Your task to perform on an android device: find photos in the google photos app Image 0: 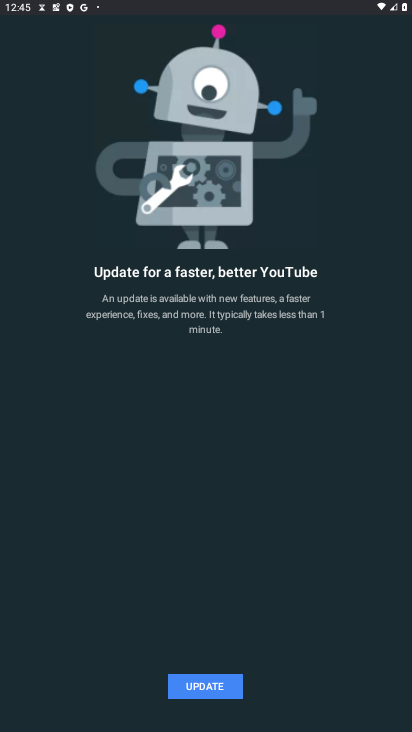
Step 0: press home button
Your task to perform on an android device: find photos in the google photos app Image 1: 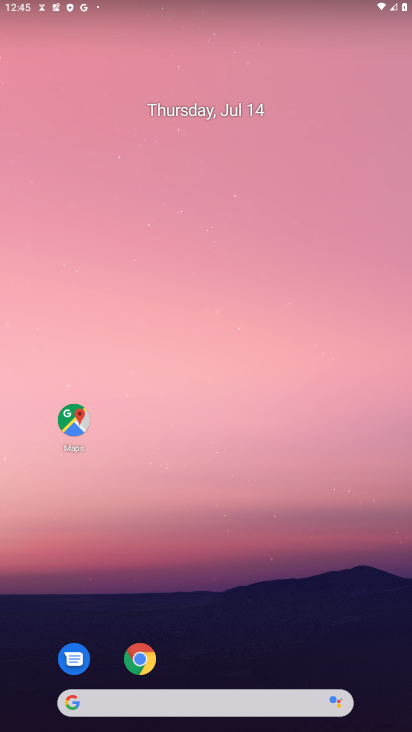
Step 1: drag from (34, 699) to (205, 257)
Your task to perform on an android device: find photos in the google photos app Image 2: 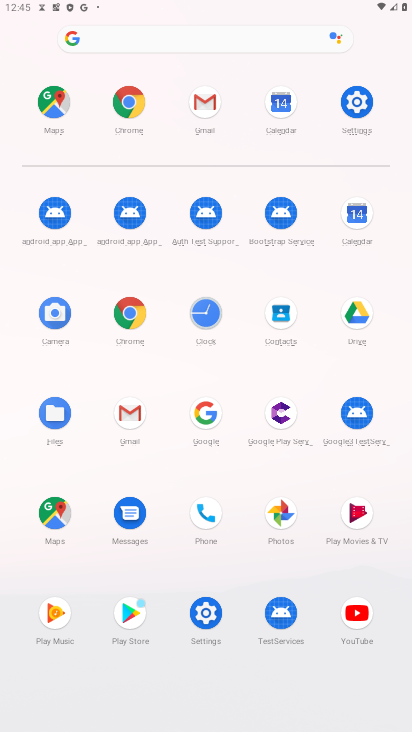
Step 2: click (281, 520)
Your task to perform on an android device: find photos in the google photos app Image 3: 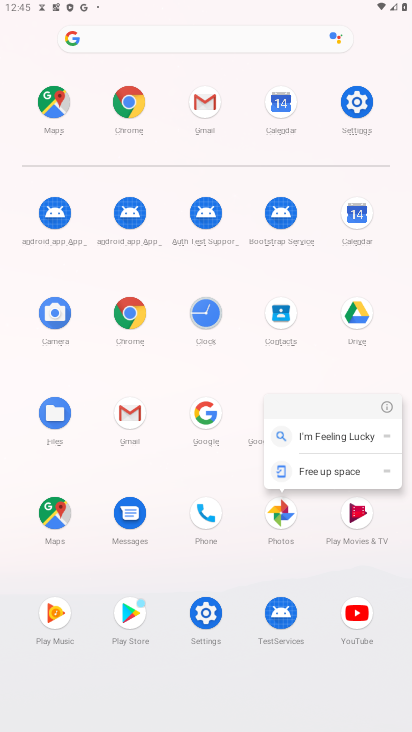
Step 3: click (204, 679)
Your task to perform on an android device: find photos in the google photos app Image 4: 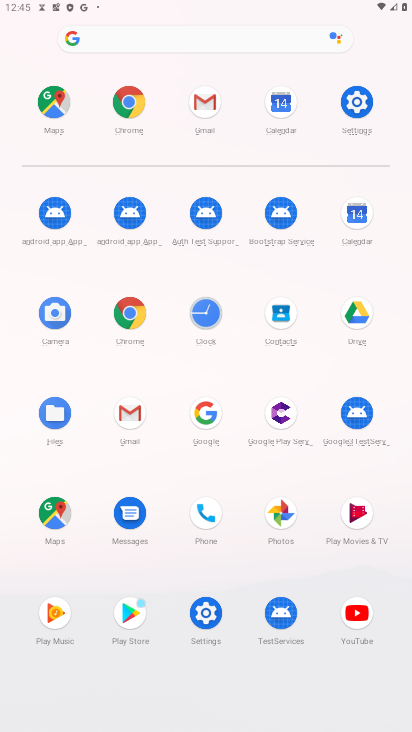
Step 4: click (282, 522)
Your task to perform on an android device: find photos in the google photos app Image 5: 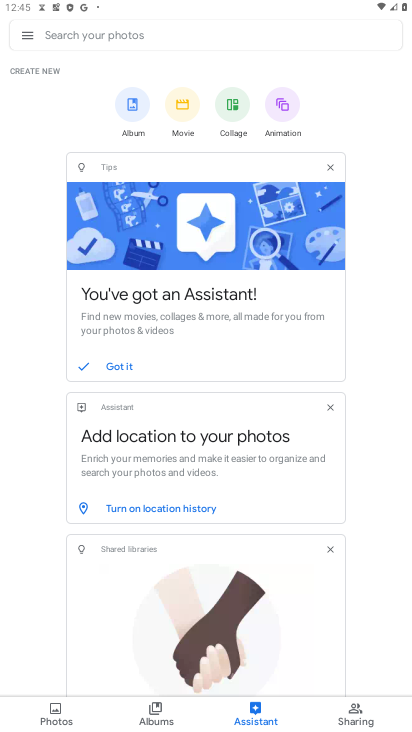
Step 5: task complete